Your task to perform on an android device: install app "Spotify" Image 0: 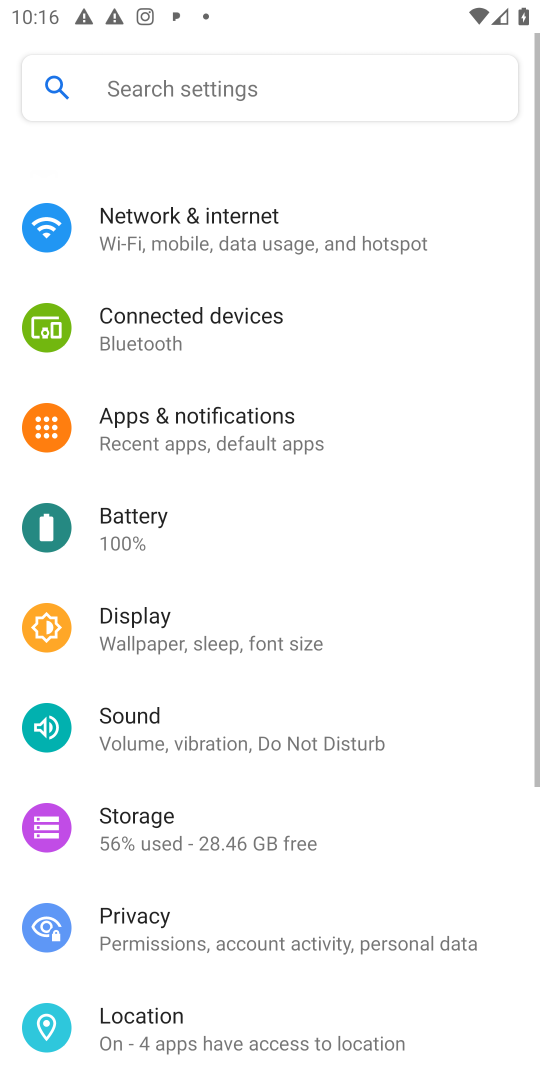
Step 0: press home button
Your task to perform on an android device: install app "Spotify" Image 1: 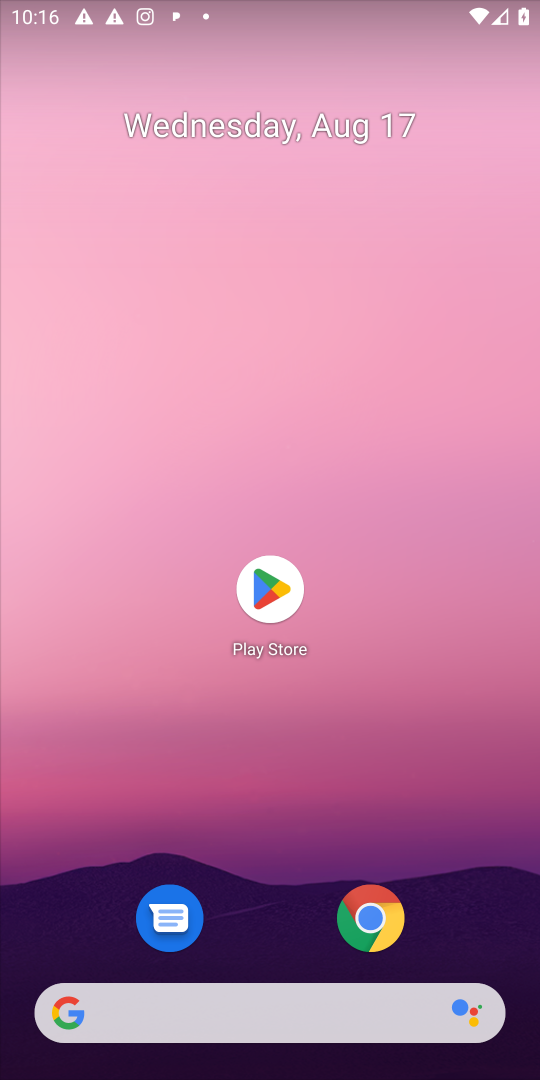
Step 1: click (271, 592)
Your task to perform on an android device: install app "Spotify" Image 2: 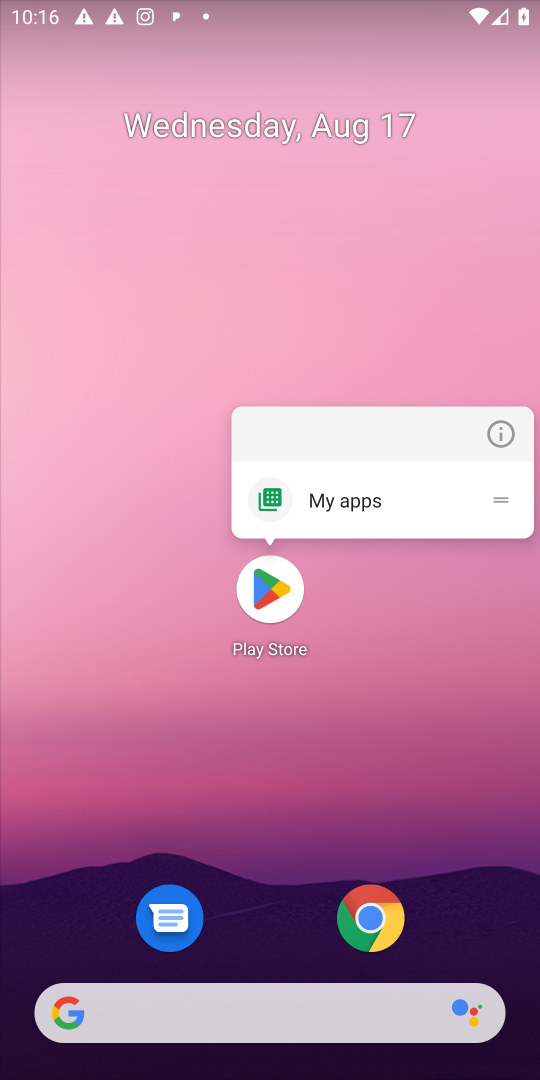
Step 2: click (271, 592)
Your task to perform on an android device: install app "Spotify" Image 3: 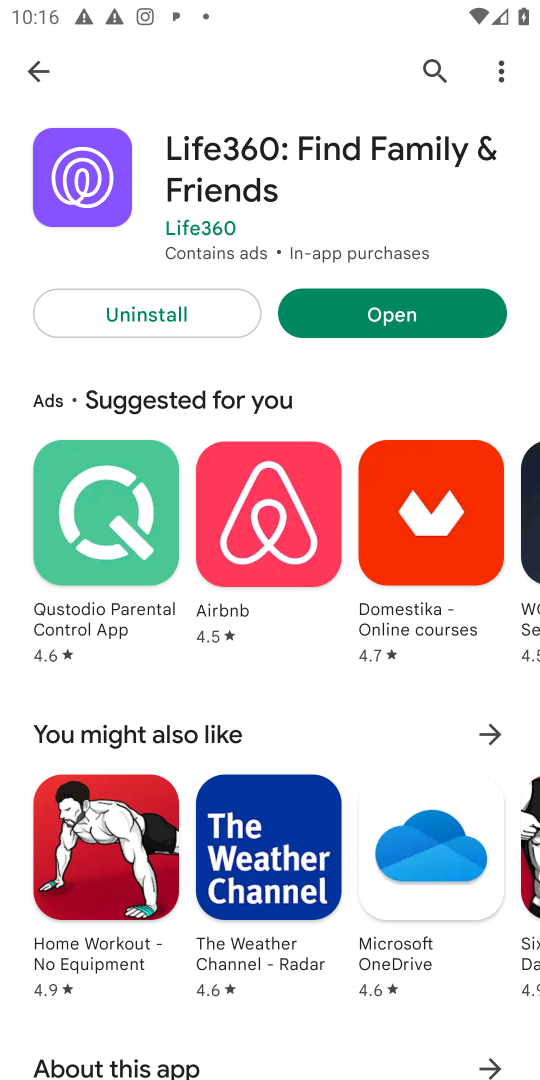
Step 3: click (434, 68)
Your task to perform on an android device: install app "Spotify" Image 4: 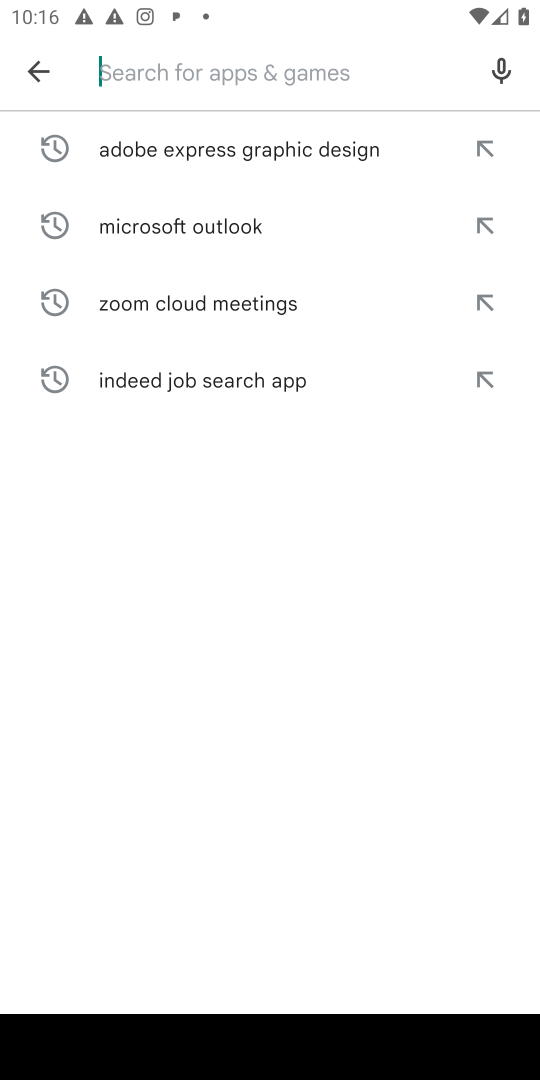
Step 4: type "Spotify"
Your task to perform on an android device: install app "Spotify" Image 5: 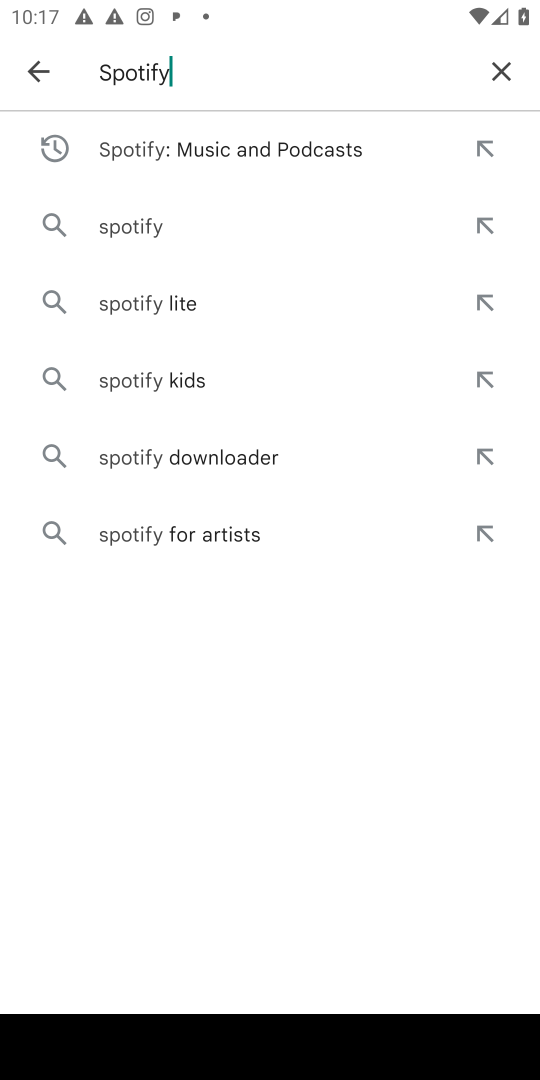
Step 5: click (229, 151)
Your task to perform on an android device: install app "Spotify" Image 6: 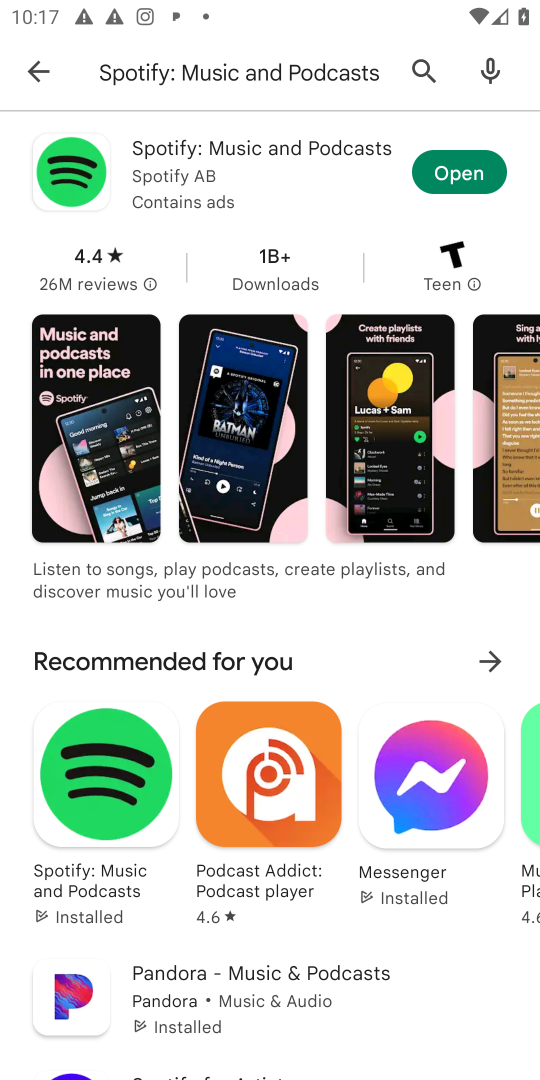
Step 6: task complete